Your task to perform on an android device: Open wifi settings Image 0: 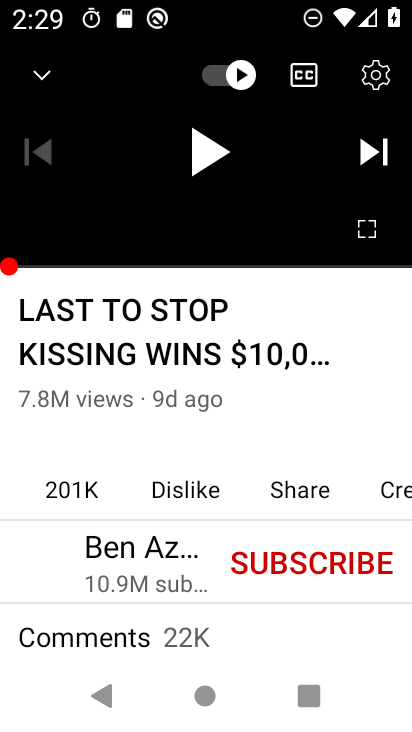
Step 0: press home button
Your task to perform on an android device: Open wifi settings Image 1: 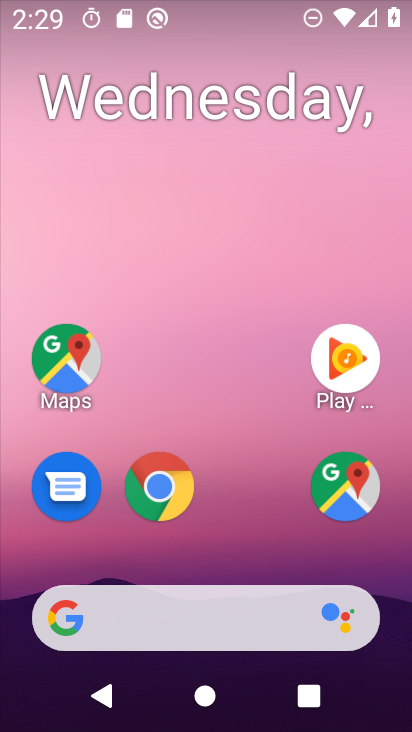
Step 1: drag from (226, 540) to (221, 85)
Your task to perform on an android device: Open wifi settings Image 2: 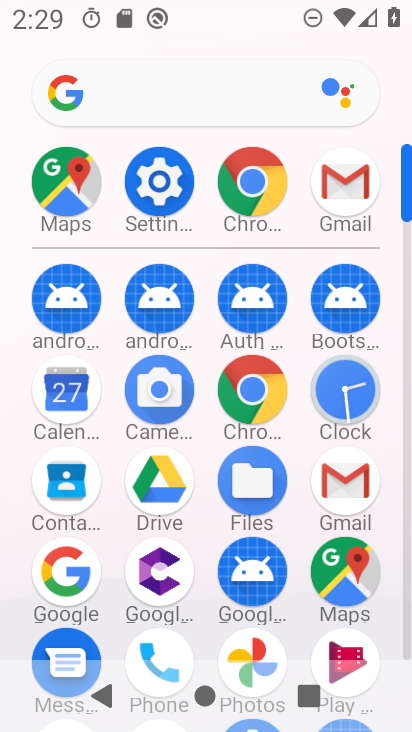
Step 2: click (153, 188)
Your task to perform on an android device: Open wifi settings Image 3: 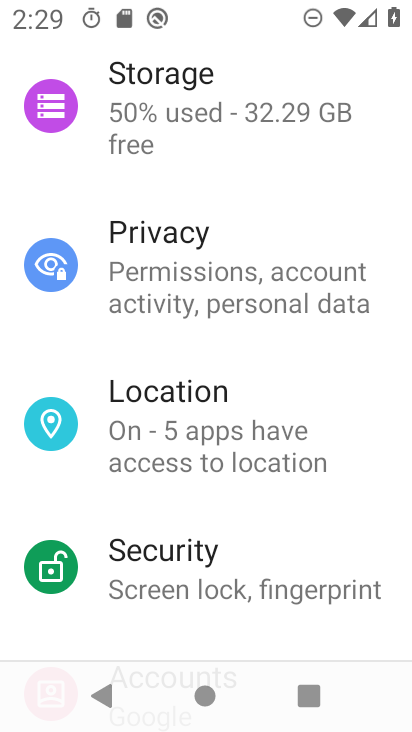
Step 3: drag from (372, 194) to (374, 288)
Your task to perform on an android device: Open wifi settings Image 4: 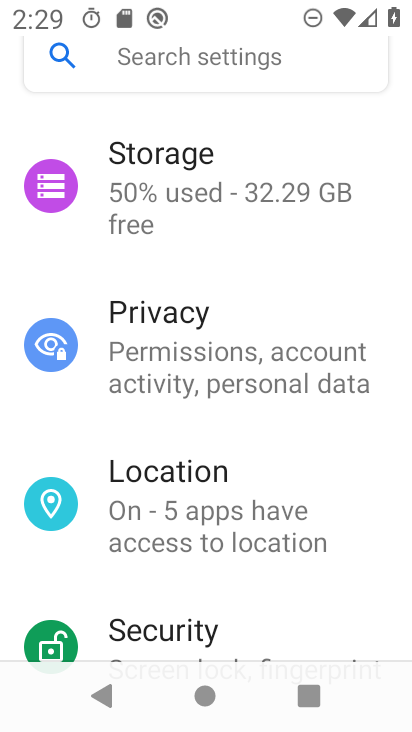
Step 4: drag from (382, 159) to (373, 260)
Your task to perform on an android device: Open wifi settings Image 5: 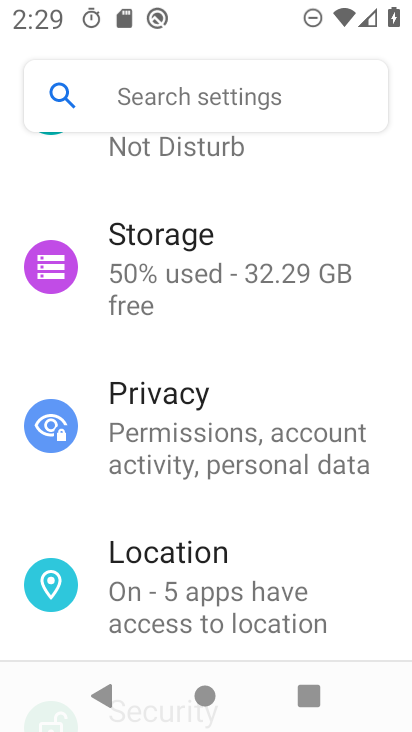
Step 5: drag from (376, 183) to (374, 304)
Your task to perform on an android device: Open wifi settings Image 6: 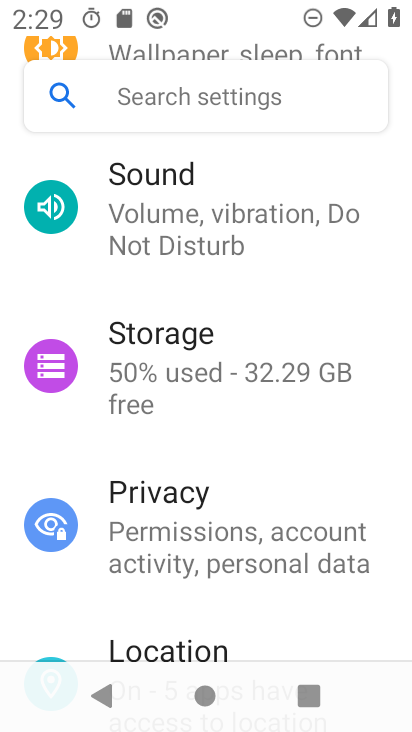
Step 6: drag from (372, 183) to (364, 328)
Your task to perform on an android device: Open wifi settings Image 7: 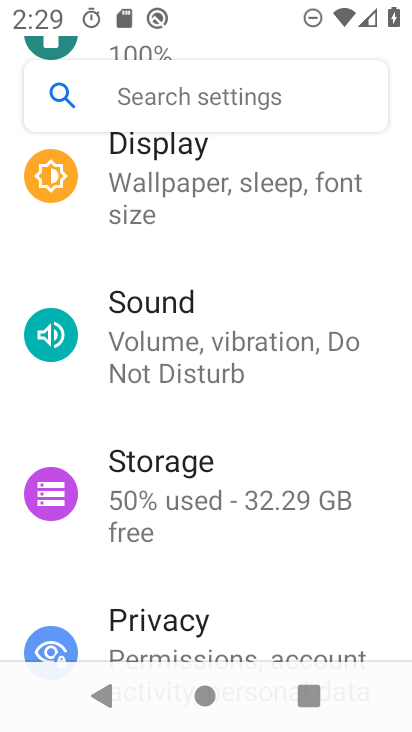
Step 7: drag from (371, 195) to (373, 324)
Your task to perform on an android device: Open wifi settings Image 8: 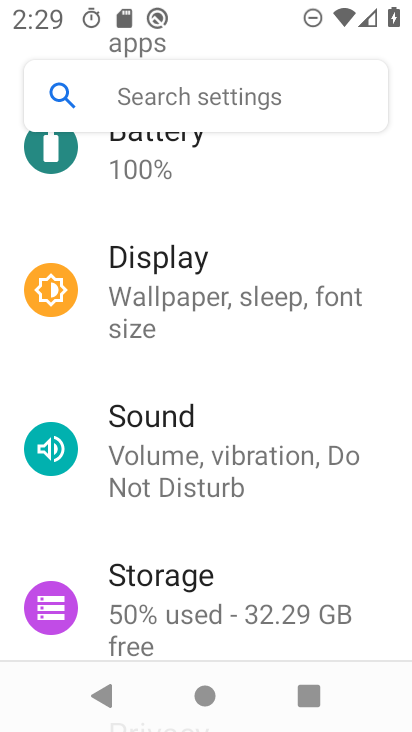
Step 8: drag from (373, 197) to (369, 383)
Your task to perform on an android device: Open wifi settings Image 9: 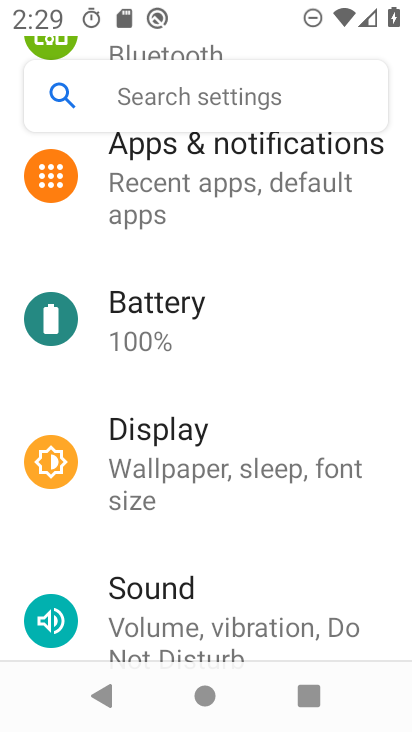
Step 9: drag from (366, 176) to (362, 389)
Your task to perform on an android device: Open wifi settings Image 10: 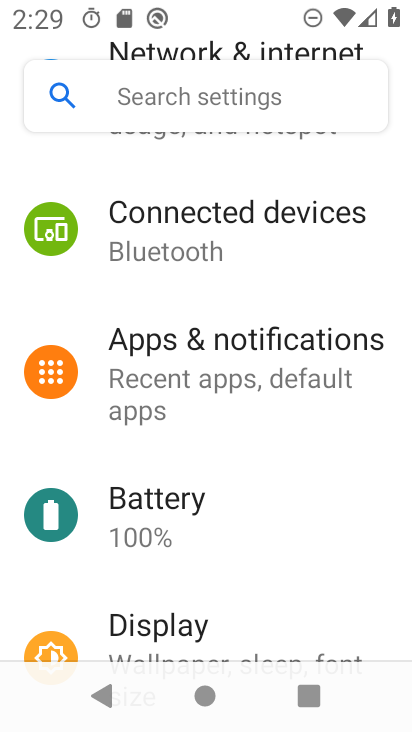
Step 10: drag from (377, 172) to (378, 371)
Your task to perform on an android device: Open wifi settings Image 11: 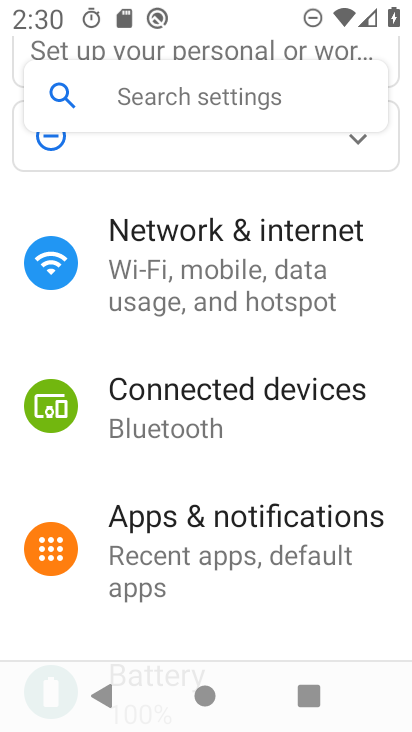
Step 11: drag from (370, 193) to (366, 385)
Your task to perform on an android device: Open wifi settings Image 12: 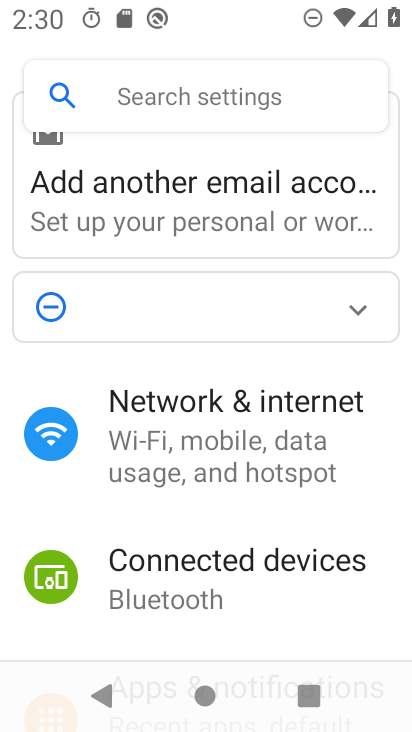
Step 12: click (276, 424)
Your task to perform on an android device: Open wifi settings Image 13: 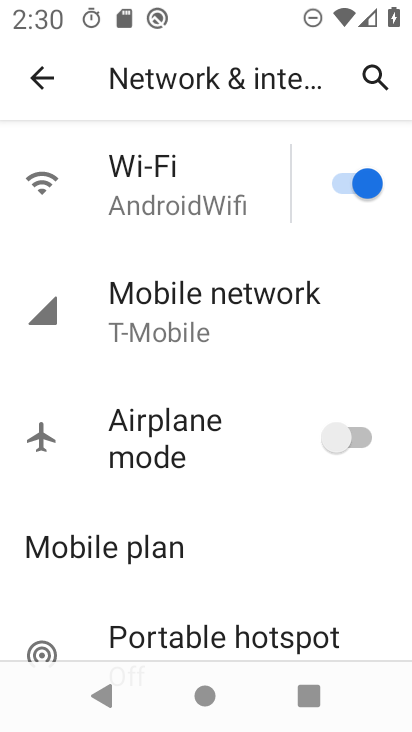
Step 13: click (188, 182)
Your task to perform on an android device: Open wifi settings Image 14: 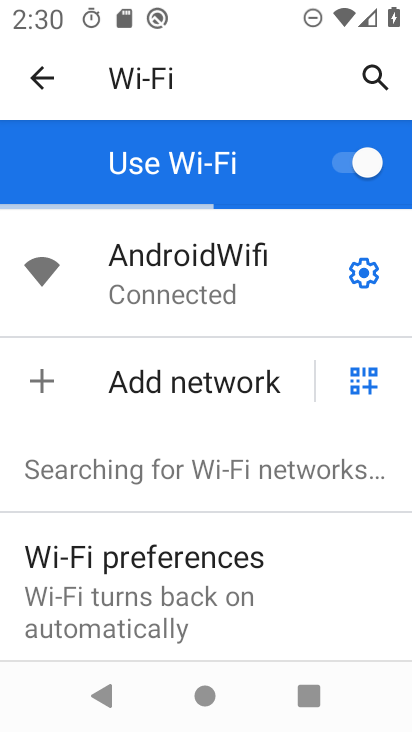
Step 14: task complete